Your task to perform on an android device: read, delete, or share a saved page in the chrome app Image 0: 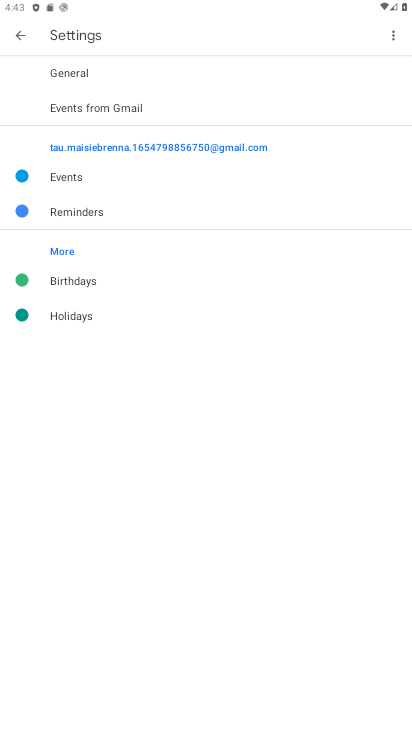
Step 0: press home button
Your task to perform on an android device: read, delete, or share a saved page in the chrome app Image 1: 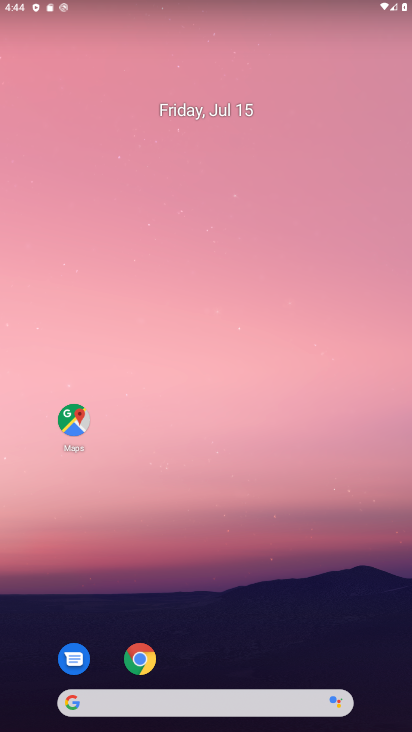
Step 1: click (150, 665)
Your task to perform on an android device: read, delete, or share a saved page in the chrome app Image 2: 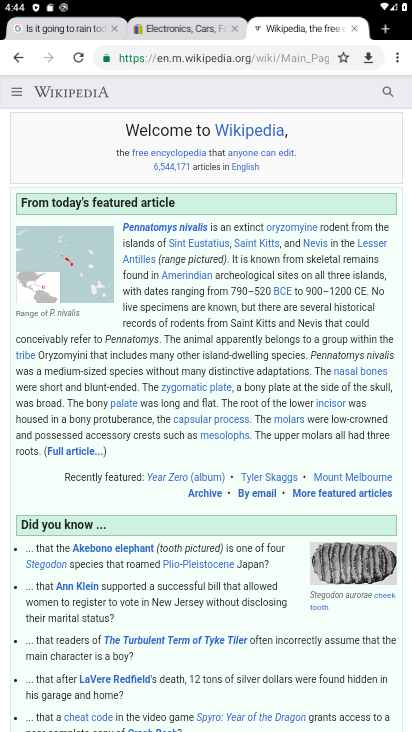
Step 2: click (399, 66)
Your task to perform on an android device: read, delete, or share a saved page in the chrome app Image 3: 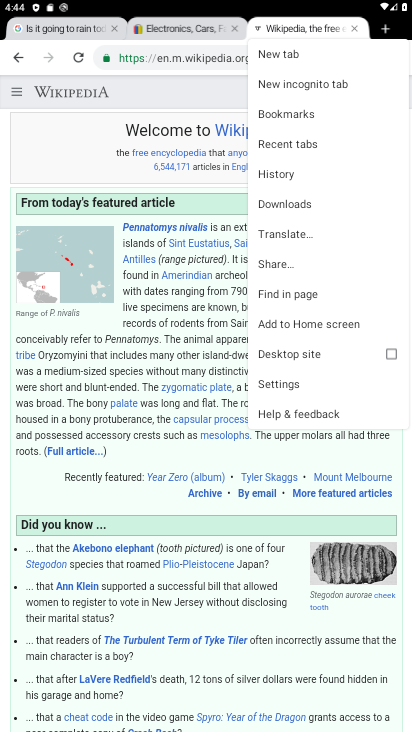
Step 3: click (321, 208)
Your task to perform on an android device: read, delete, or share a saved page in the chrome app Image 4: 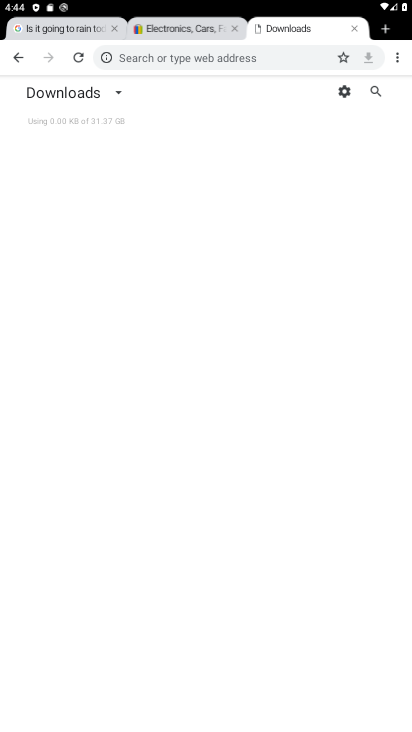
Step 4: click (108, 92)
Your task to perform on an android device: read, delete, or share a saved page in the chrome app Image 5: 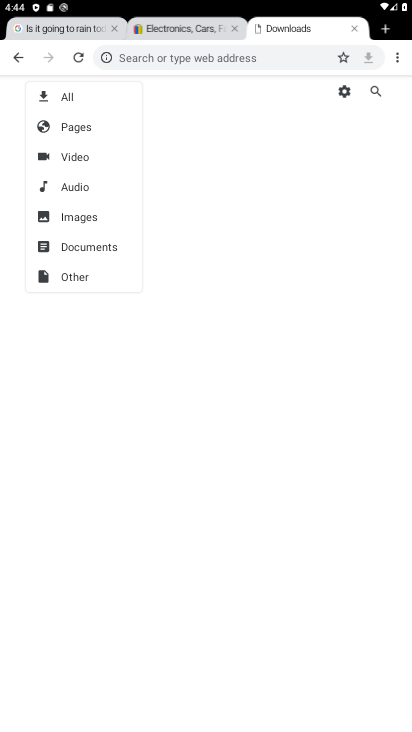
Step 5: click (109, 124)
Your task to perform on an android device: read, delete, or share a saved page in the chrome app Image 6: 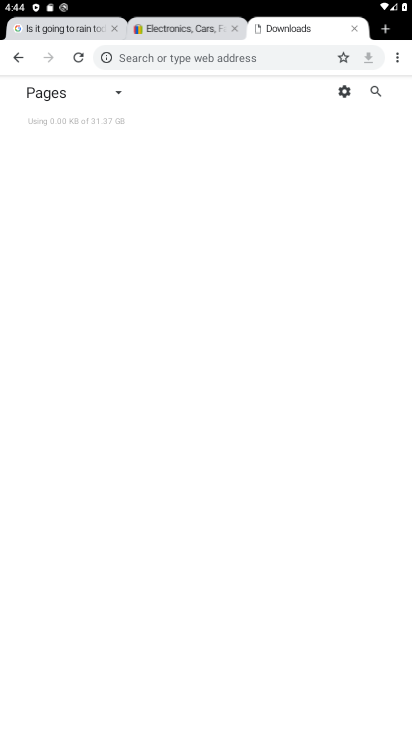
Step 6: task complete